Your task to perform on an android device: Play the last video I watched on Youtube Image 0: 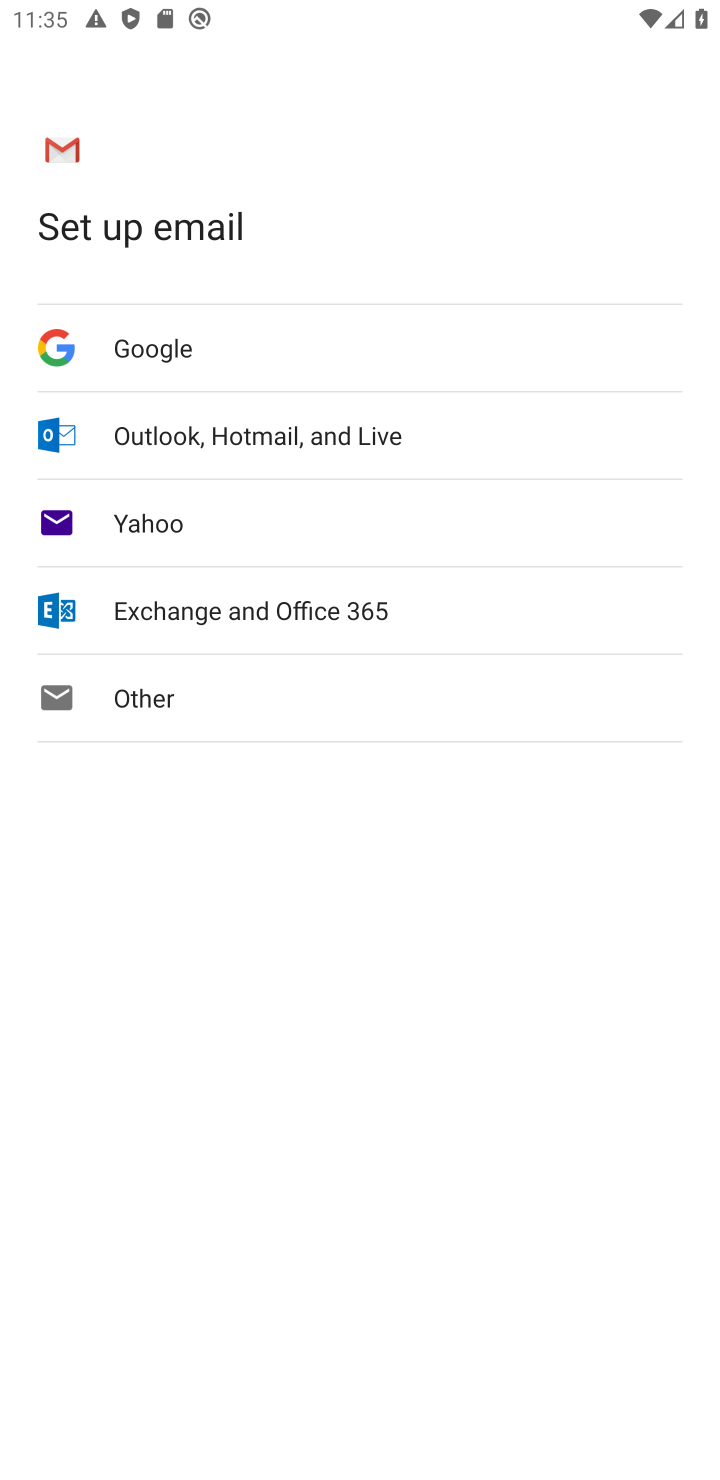
Step 0: press home button
Your task to perform on an android device: Play the last video I watched on Youtube Image 1: 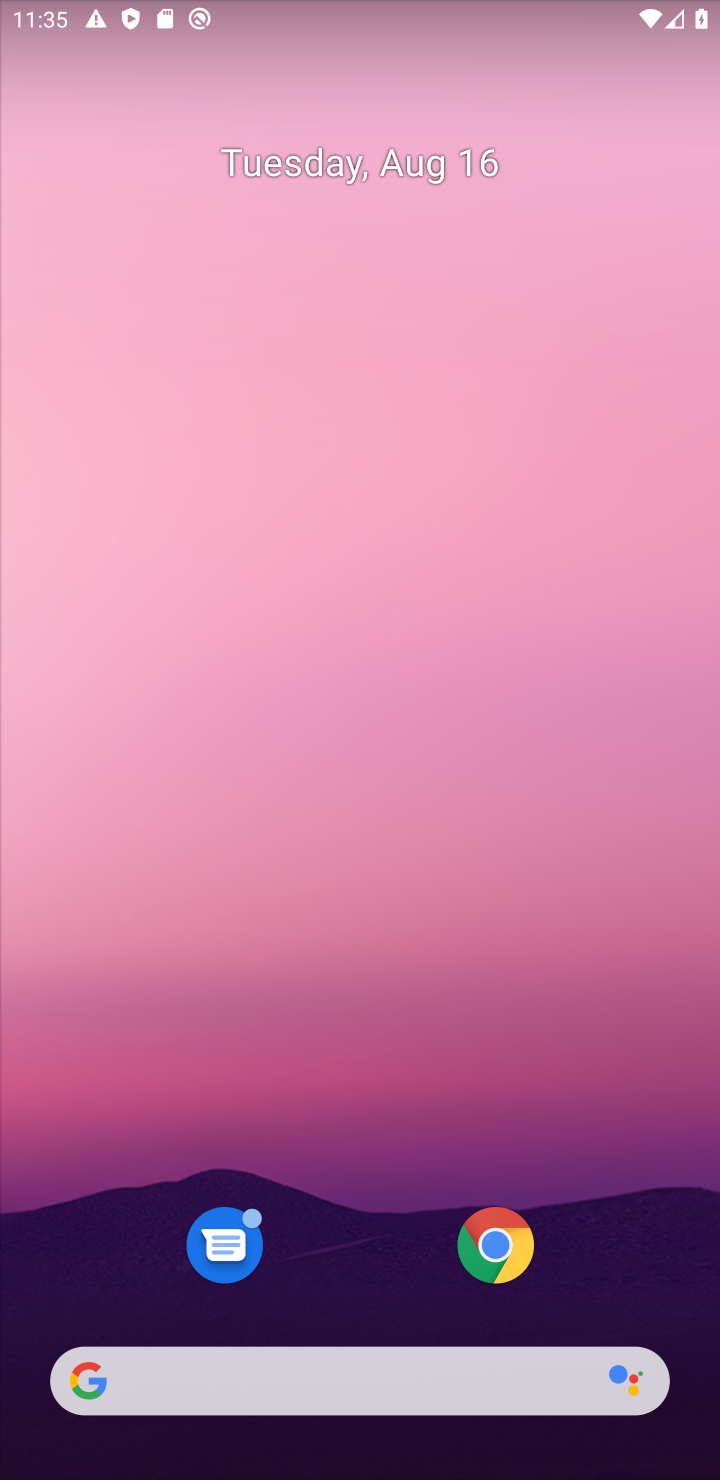
Step 1: drag from (402, 1328) to (299, 326)
Your task to perform on an android device: Play the last video I watched on Youtube Image 2: 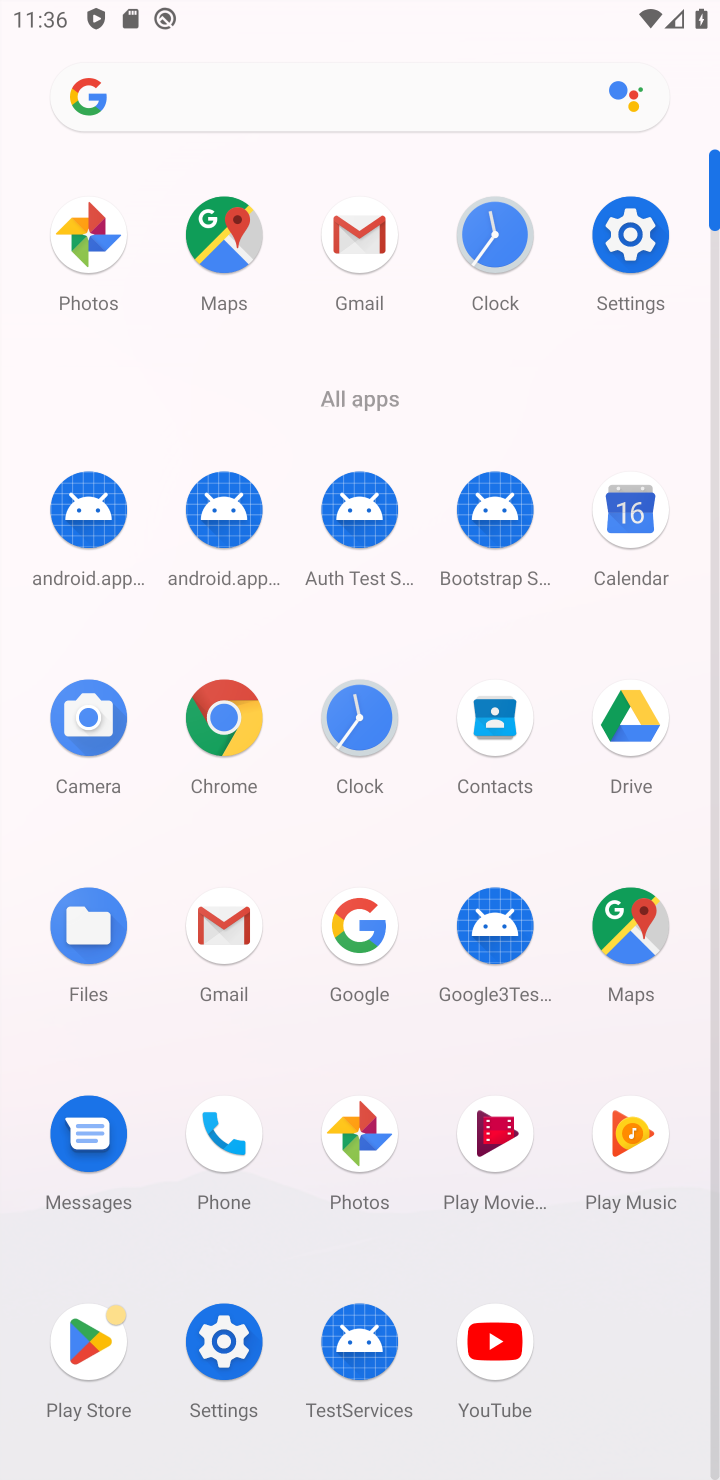
Step 2: click (493, 1337)
Your task to perform on an android device: Play the last video I watched on Youtube Image 3: 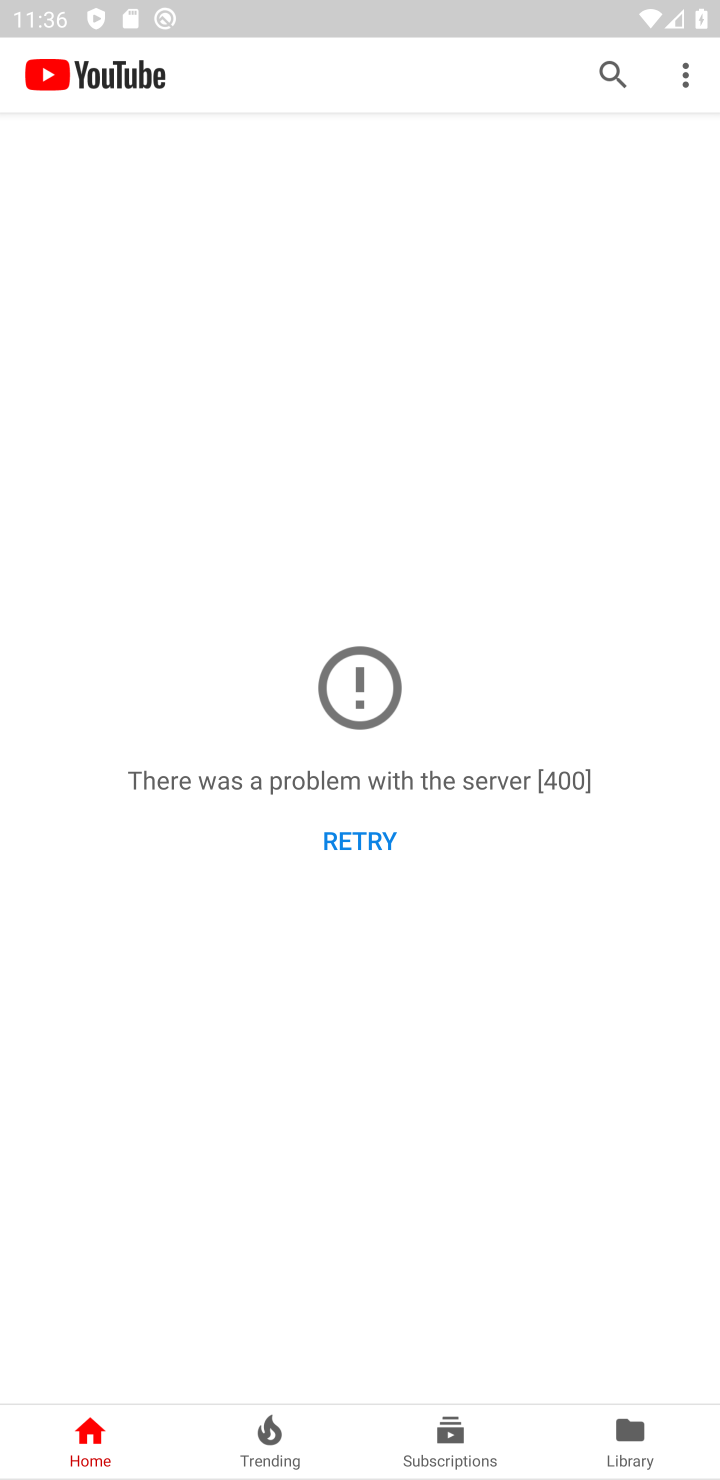
Step 3: click (366, 824)
Your task to perform on an android device: Play the last video I watched on Youtube Image 4: 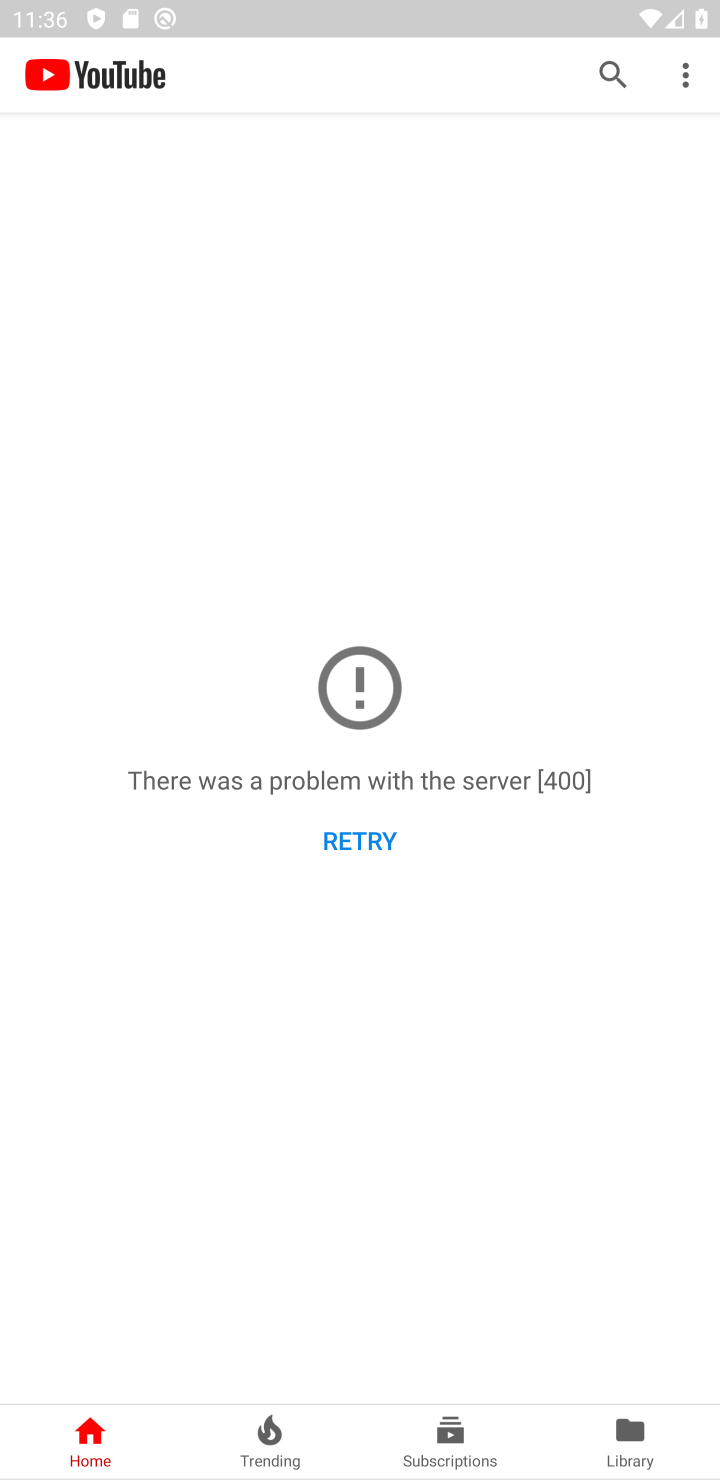
Step 4: click (366, 824)
Your task to perform on an android device: Play the last video I watched on Youtube Image 5: 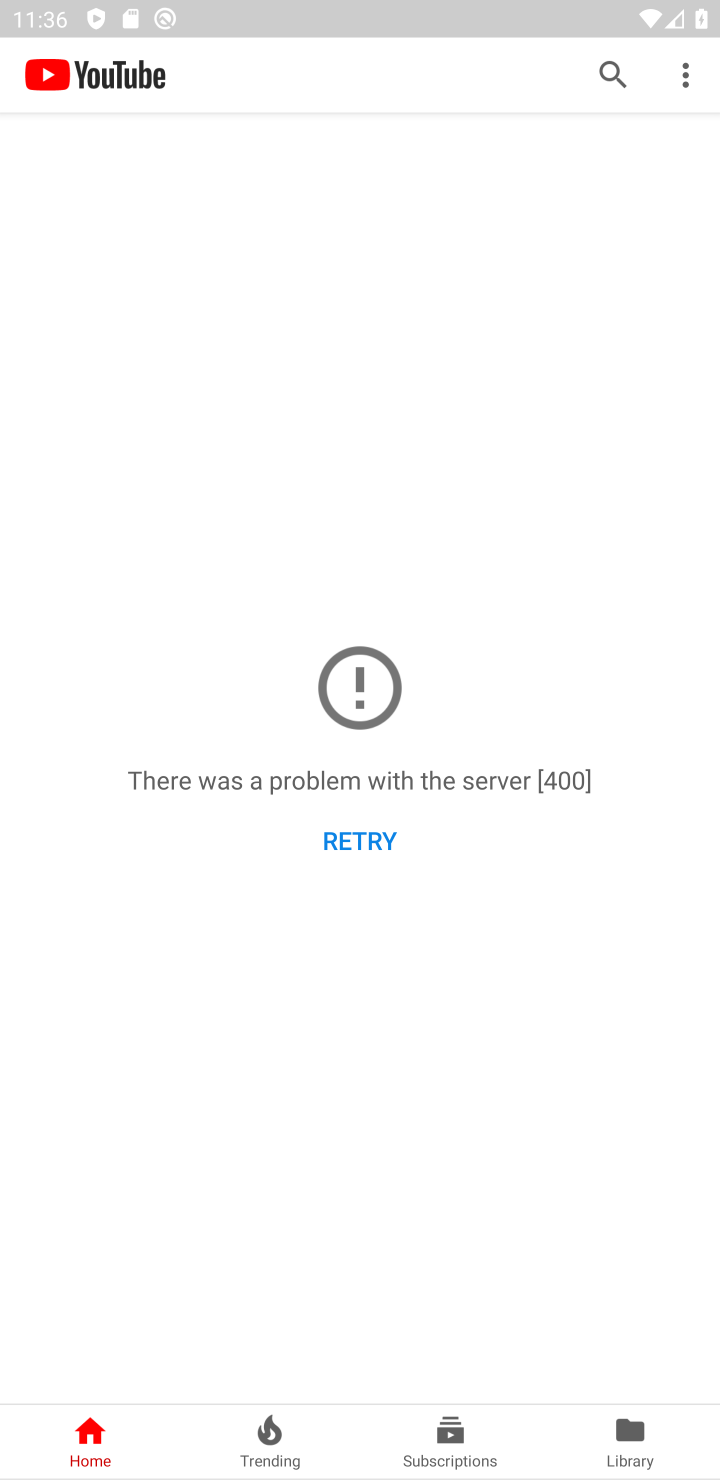
Step 5: task complete